Your task to perform on an android device: turn pop-ups off in chrome Image 0: 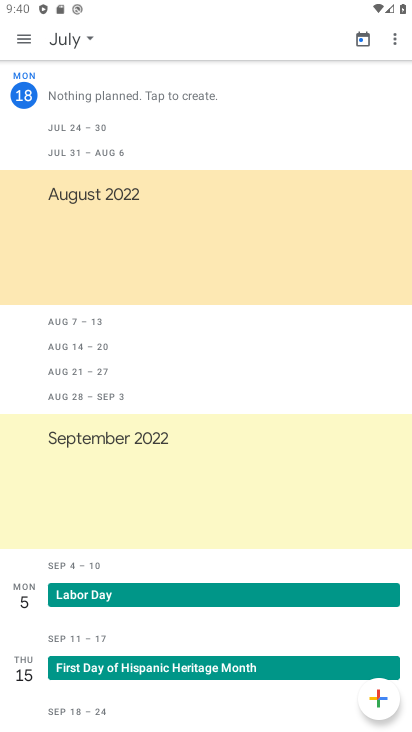
Step 0: press home button
Your task to perform on an android device: turn pop-ups off in chrome Image 1: 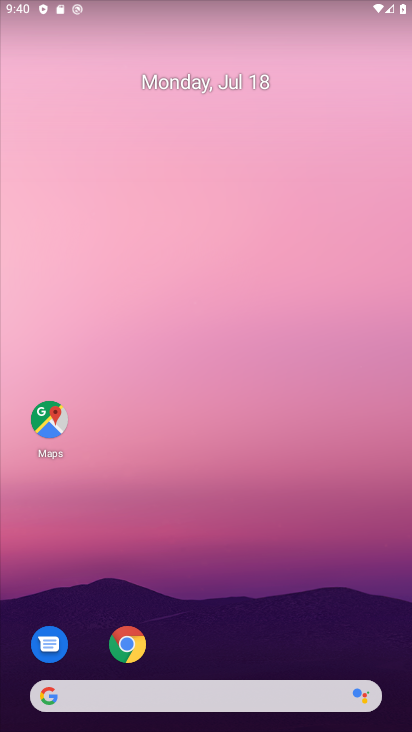
Step 1: click (143, 646)
Your task to perform on an android device: turn pop-ups off in chrome Image 2: 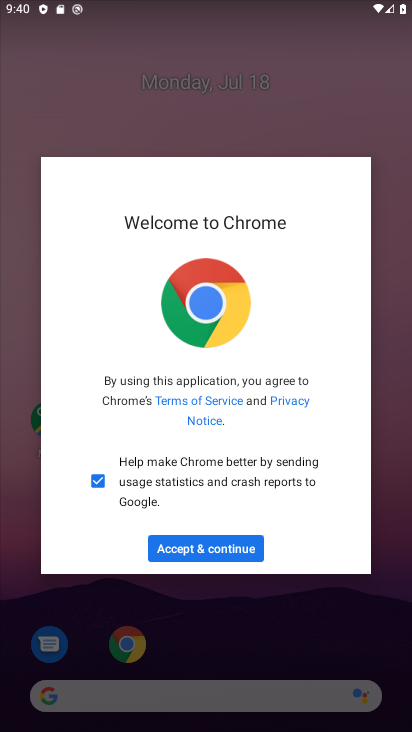
Step 2: click (234, 539)
Your task to perform on an android device: turn pop-ups off in chrome Image 3: 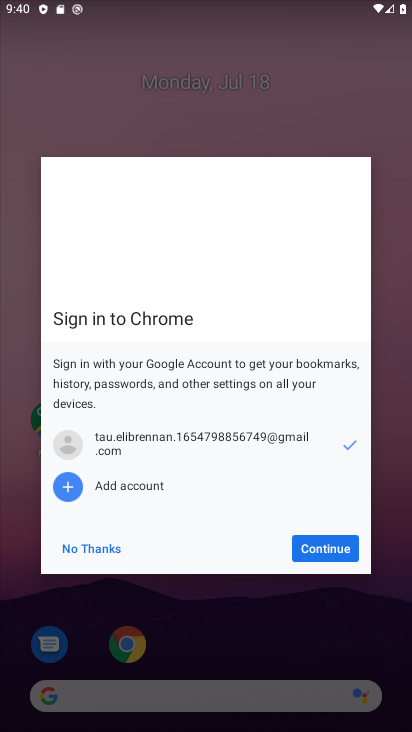
Step 3: click (334, 544)
Your task to perform on an android device: turn pop-ups off in chrome Image 4: 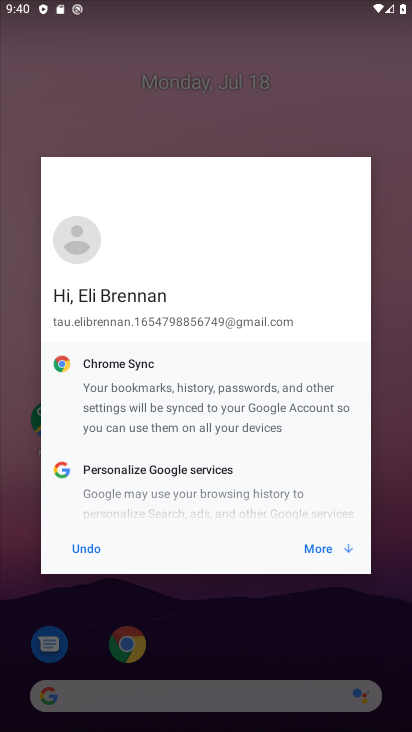
Step 4: click (334, 544)
Your task to perform on an android device: turn pop-ups off in chrome Image 5: 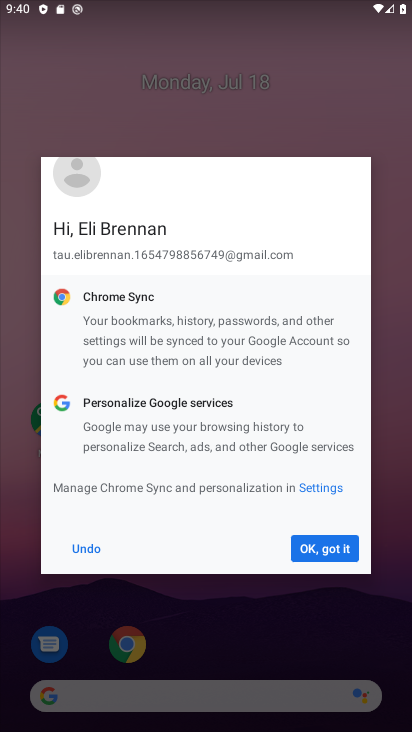
Step 5: click (333, 547)
Your task to perform on an android device: turn pop-ups off in chrome Image 6: 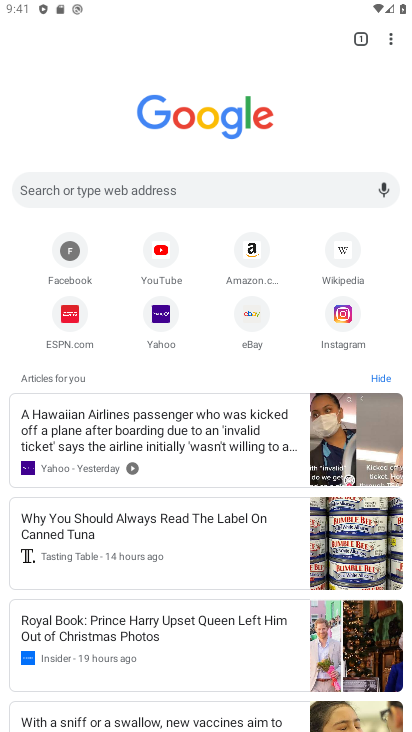
Step 6: drag from (390, 27) to (272, 312)
Your task to perform on an android device: turn pop-ups off in chrome Image 7: 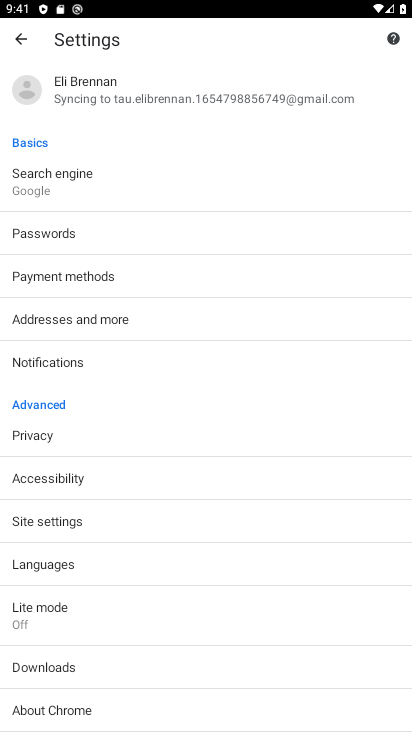
Step 7: click (127, 521)
Your task to perform on an android device: turn pop-ups off in chrome Image 8: 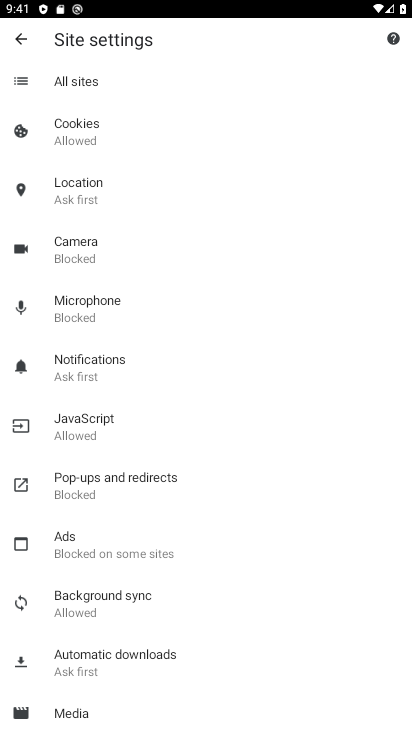
Step 8: click (146, 489)
Your task to perform on an android device: turn pop-ups off in chrome Image 9: 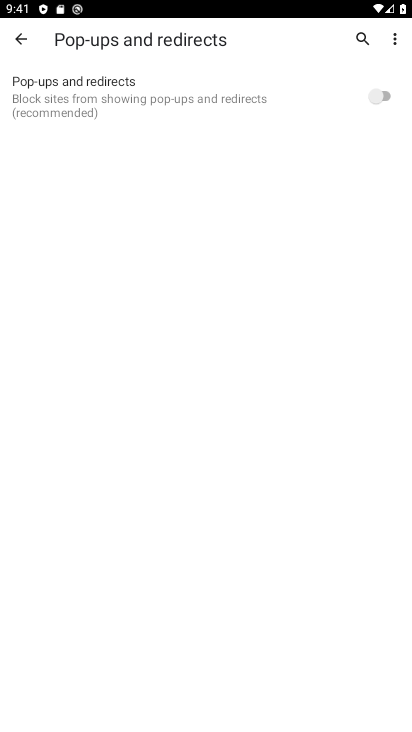
Step 9: task complete